Your task to perform on an android device: Check out the best rated books on Goodreads. Image 0: 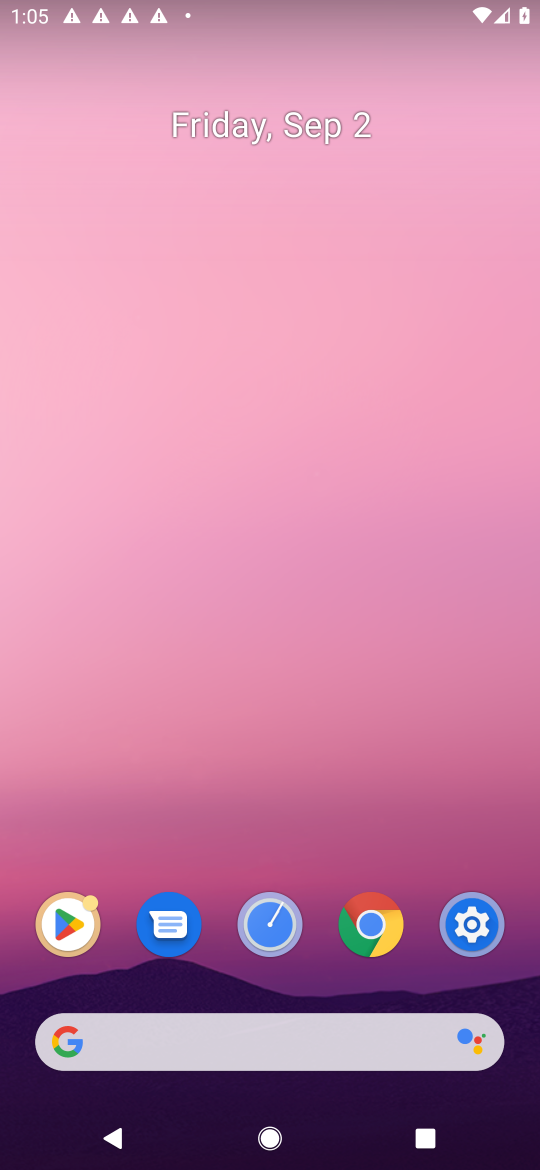
Step 0: click (234, 1035)
Your task to perform on an android device: Check out the best rated books on Goodreads. Image 1: 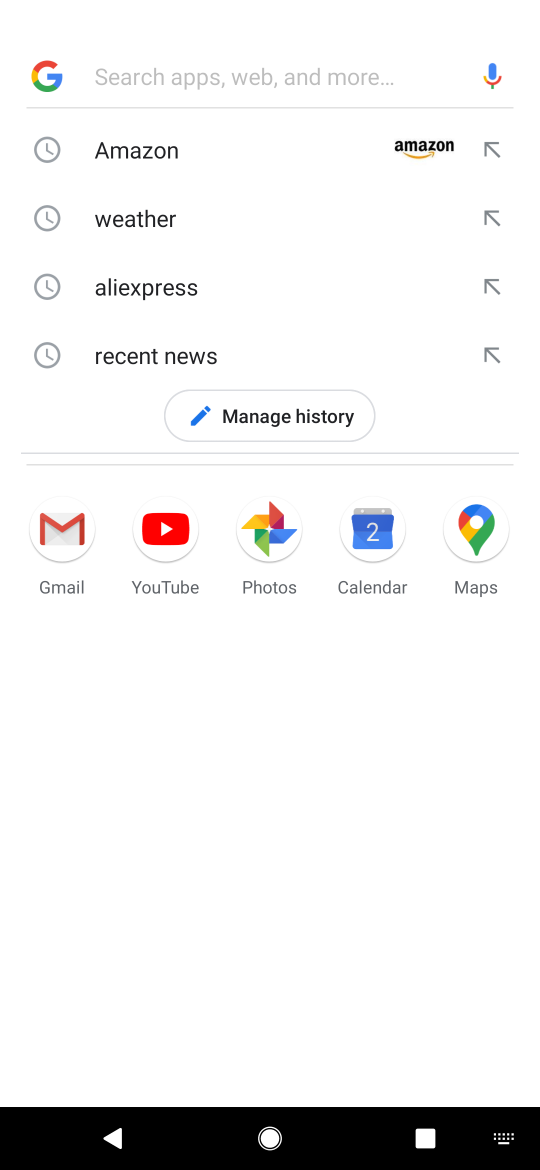
Step 1: type "Goodreads"
Your task to perform on an android device: Check out the best rated books on Goodreads. Image 2: 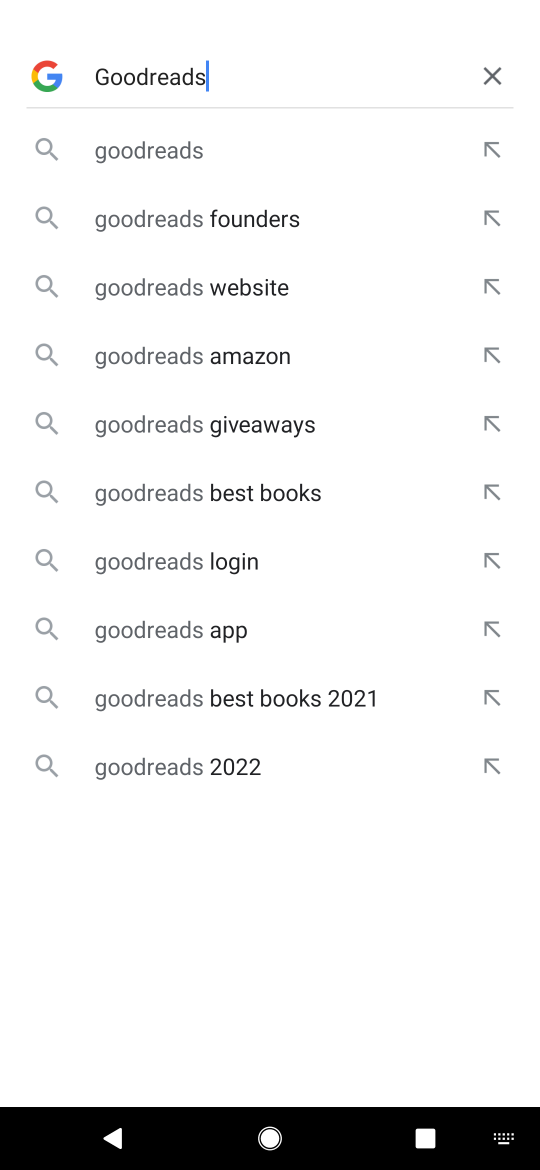
Step 2: click (184, 161)
Your task to perform on an android device: Check out the best rated books on Goodreads. Image 3: 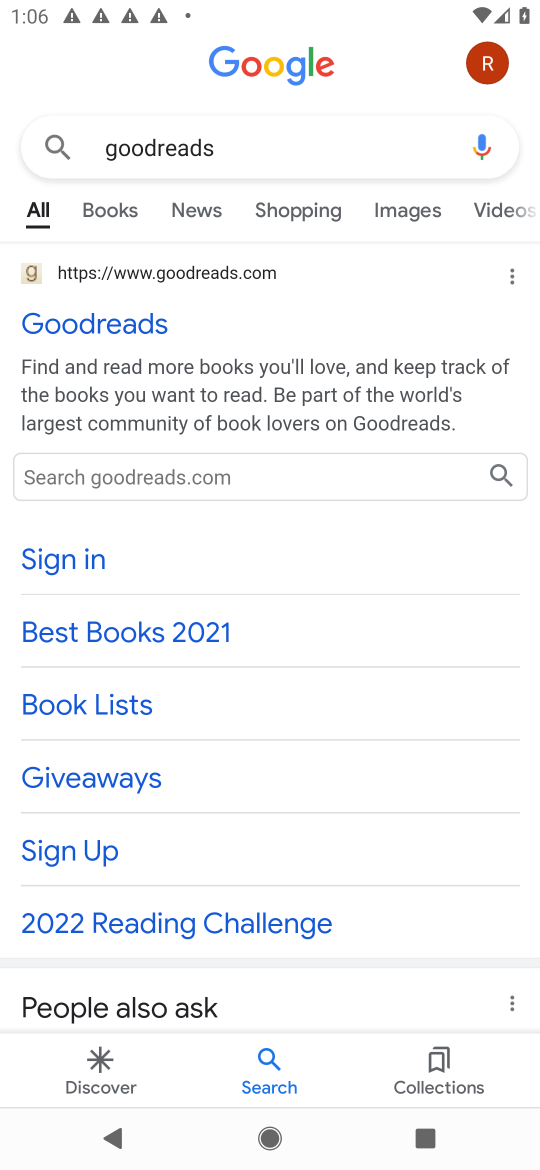
Step 3: click (89, 326)
Your task to perform on an android device: Check out the best rated books on Goodreads. Image 4: 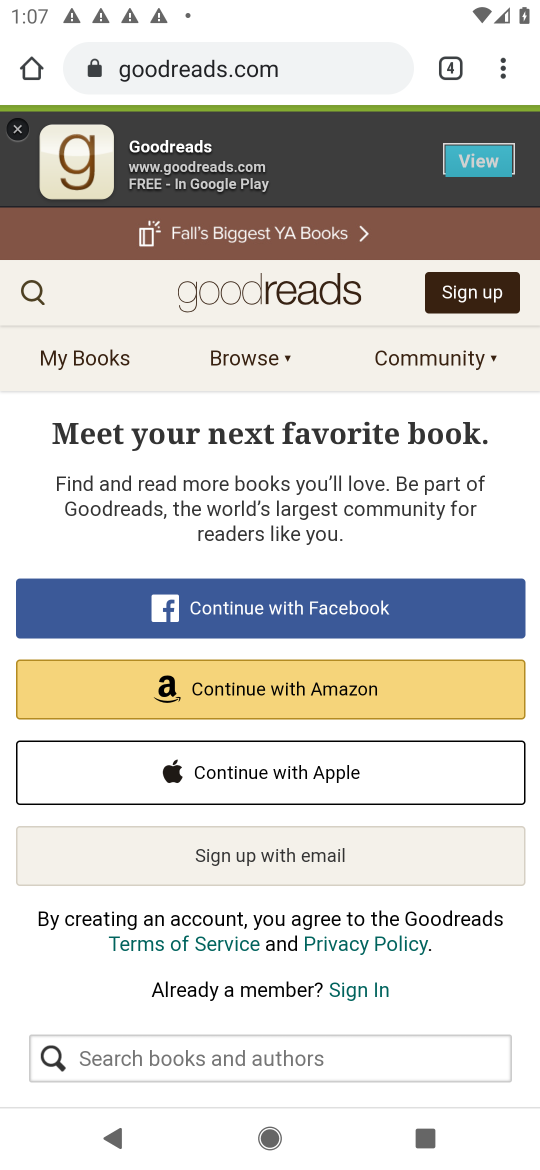
Step 4: click (36, 300)
Your task to perform on an android device: Check out the best rated books on Goodreads. Image 5: 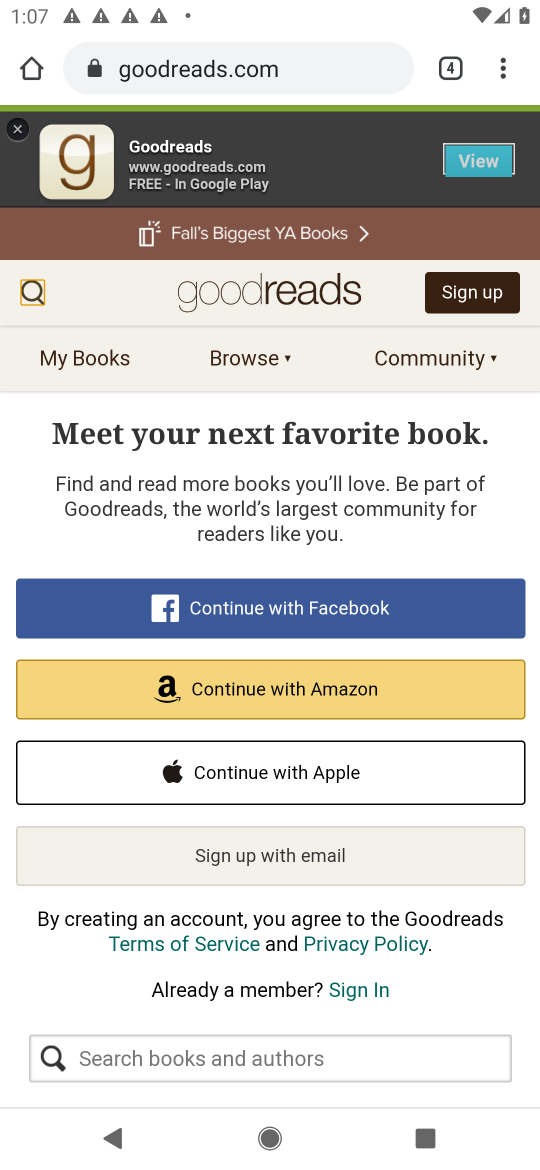
Step 5: click (36, 300)
Your task to perform on an android device: Check out the best rated books on Goodreads. Image 6: 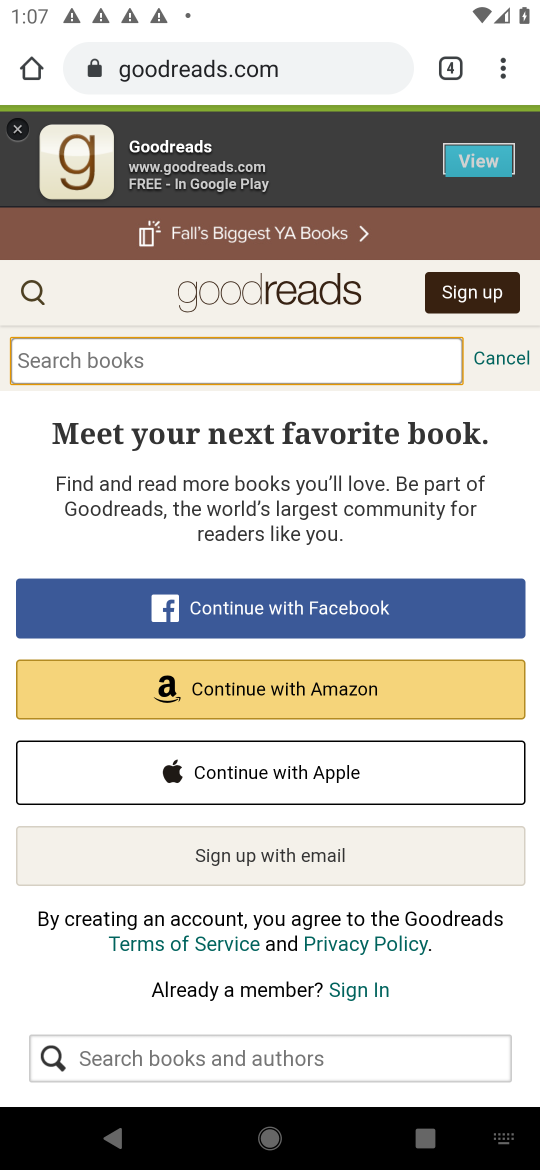
Step 6: click (141, 369)
Your task to perform on an android device: Check out the best rated books on Goodreads. Image 7: 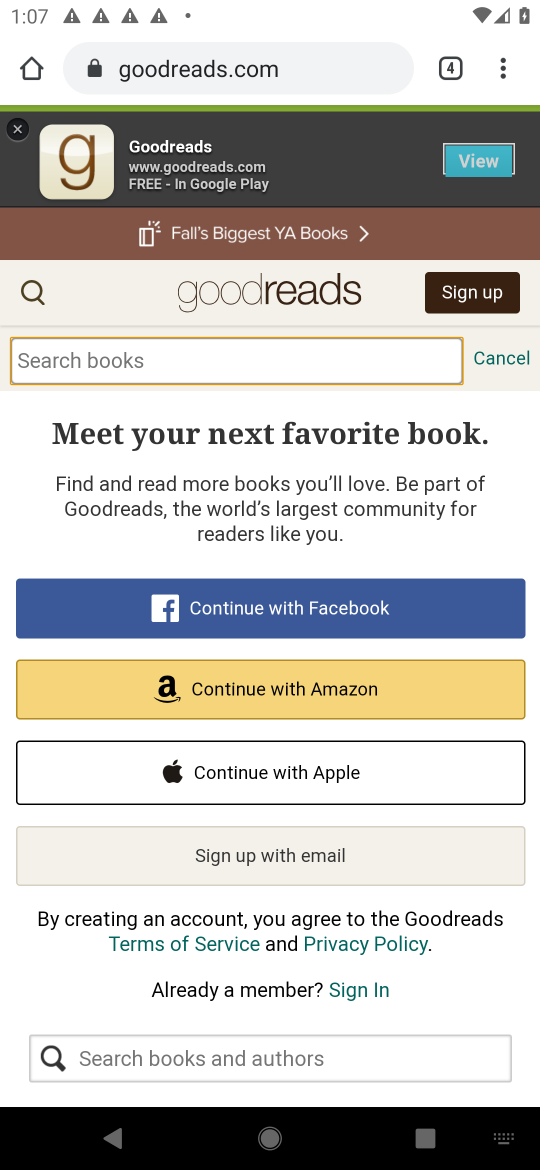
Step 7: type "book"
Your task to perform on an android device: Check out the best rated books on Goodreads. Image 8: 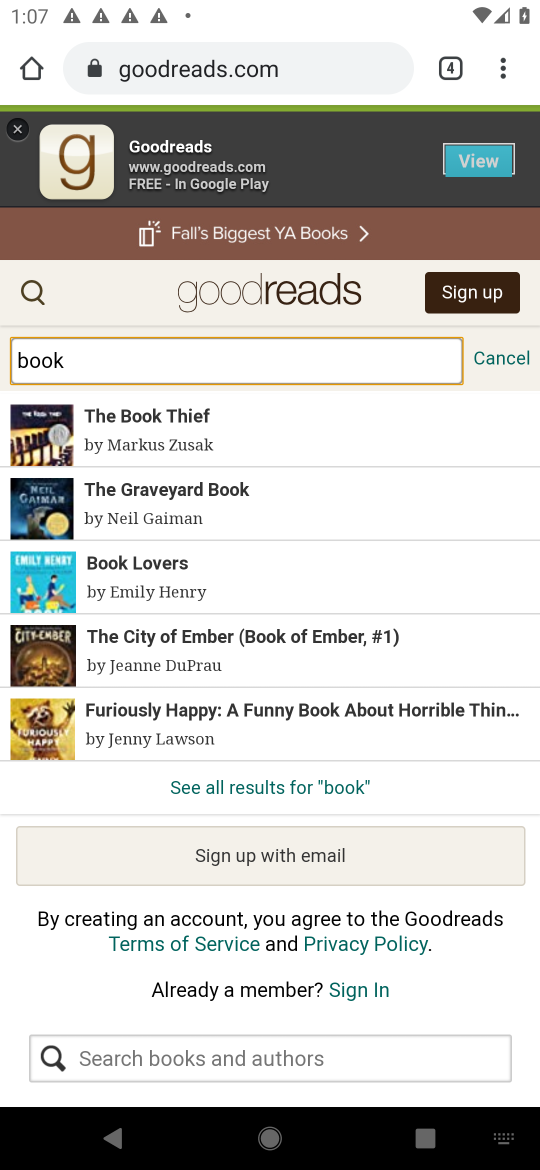
Step 8: click (255, 445)
Your task to perform on an android device: Check out the best rated books on Goodreads. Image 9: 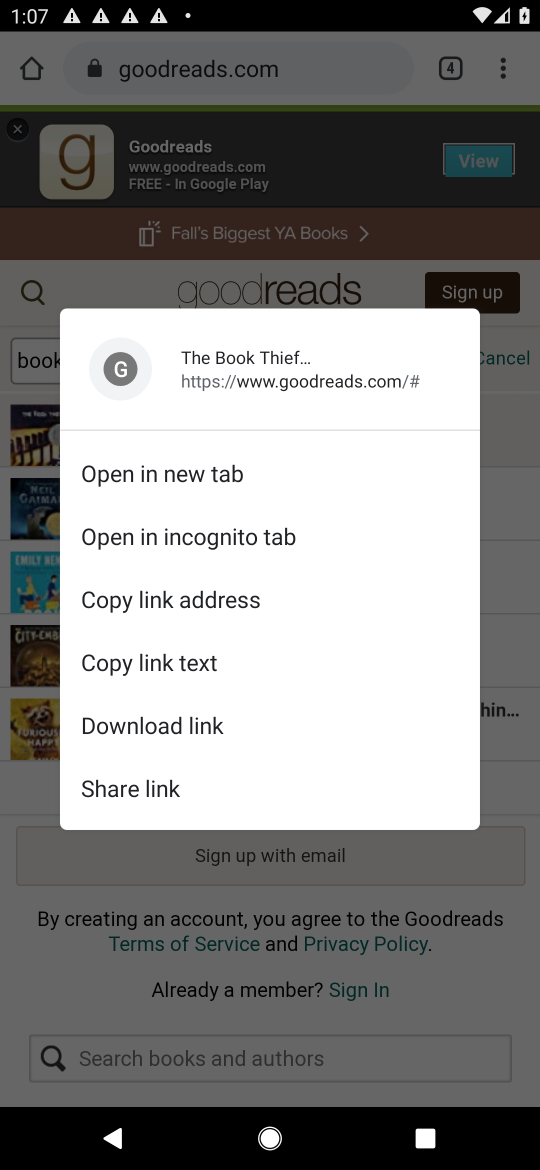
Step 9: task complete